Your task to perform on an android device: check the backup settings in the google photos Image 0: 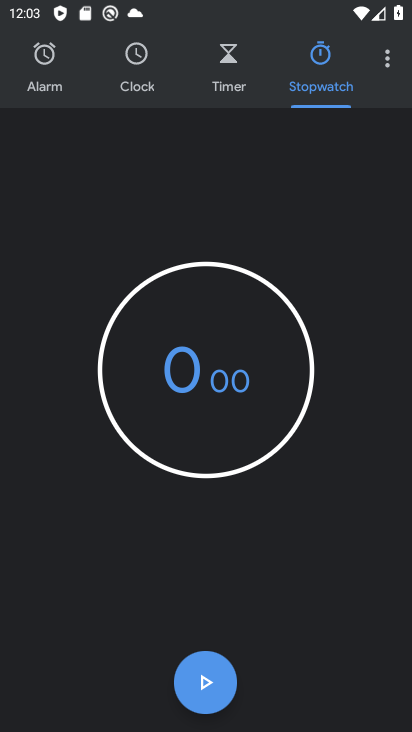
Step 0: press home button
Your task to perform on an android device: check the backup settings in the google photos Image 1: 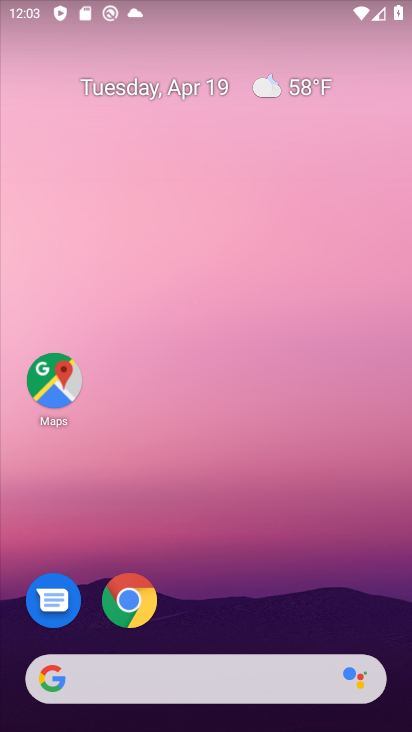
Step 1: drag from (260, 706) to (279, 321)
Your task to perform on an android device: check the backup settings in the google photos Image 2: 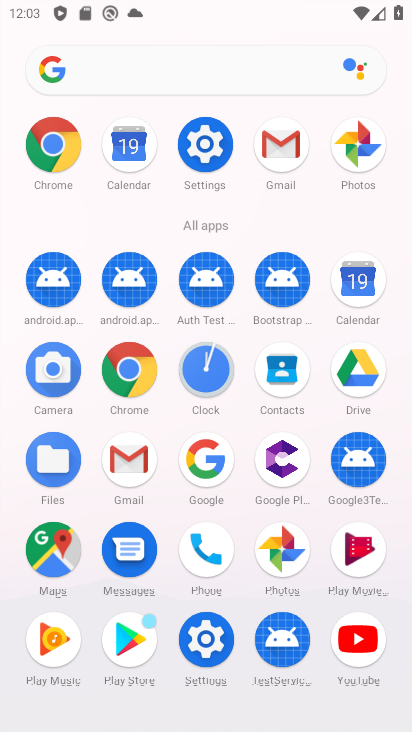
Step 2: click (287, 532)
Your task to perform on an android device: check the backup settings in the google photos Image 3: 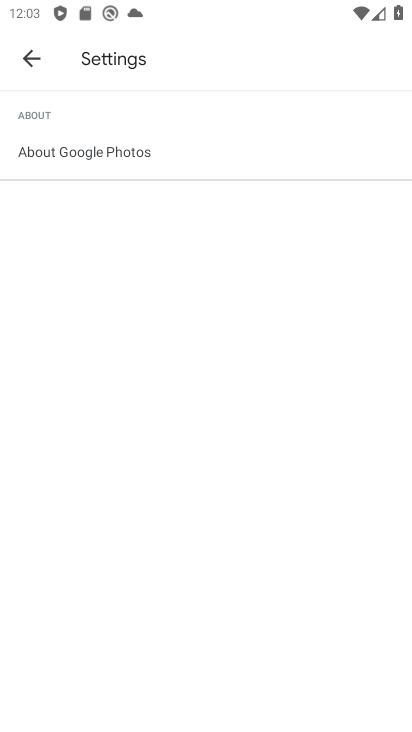
Step 3: click (31, 59)
Your task to perform on an android device: check the backup settings in the google photos Image 4: 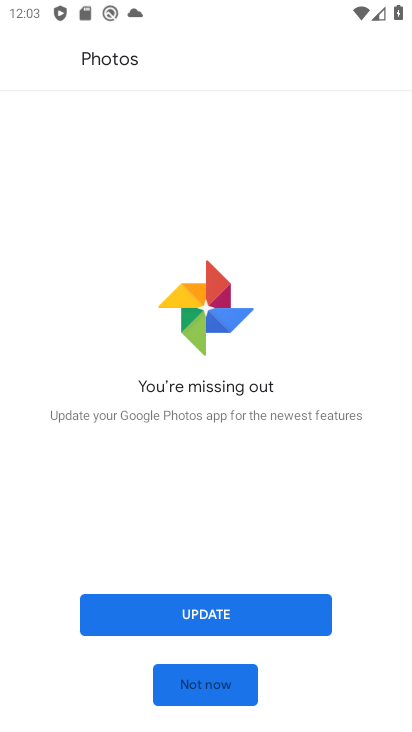
Step 4: click (199, 612)
Your task to perform on an android device: check the backup settings in the google photos Image 5: 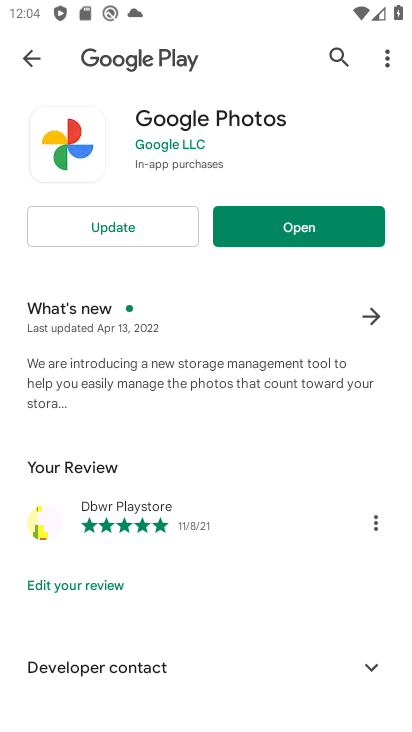
Step 5: click (270, 224)
Your task to perform on an android device: check the backup settings in the google photos Image 6: 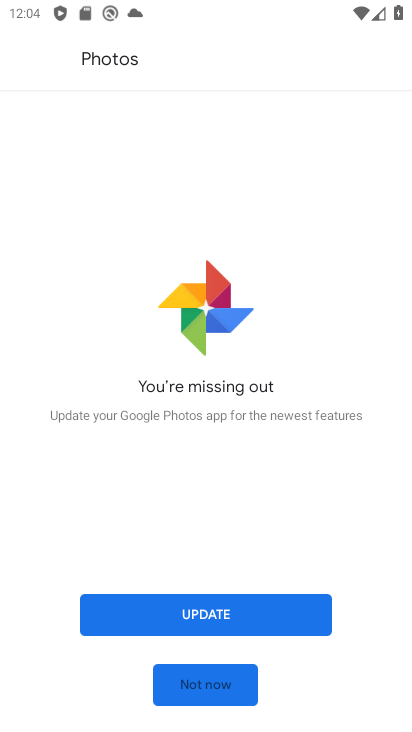
Step 6: click (212, 623)
Your task to perform on an android device: check the backup settings in the google photos Image 7: 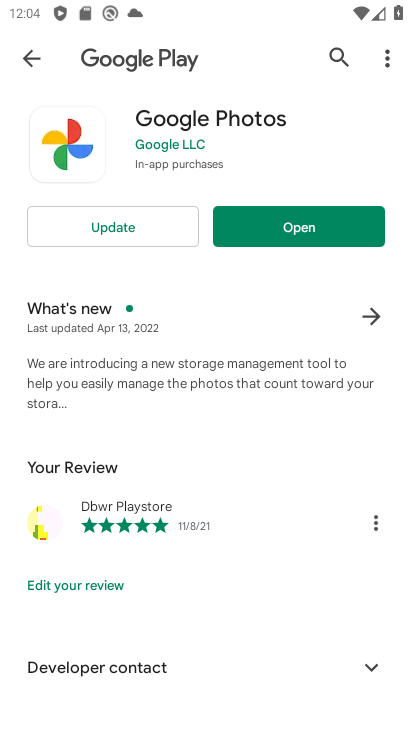
Step 7: click (145, 228)
Your task to perform on an android device: check the backup settings in the google photos Image 8: 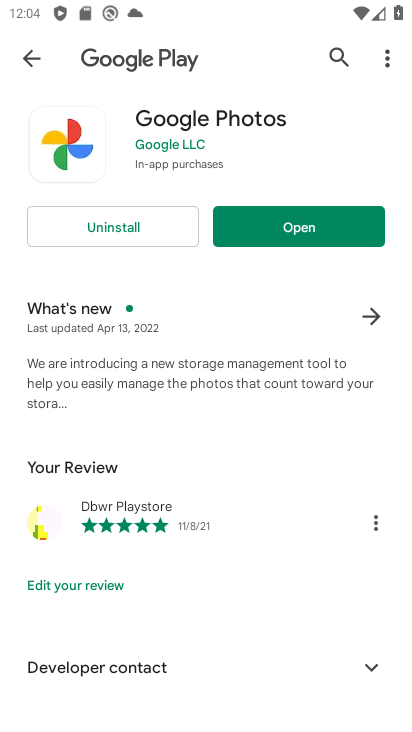
Step 8: click (276, 222)
Your task to perform on an android device: check the backup settings in the google photos Image 9: 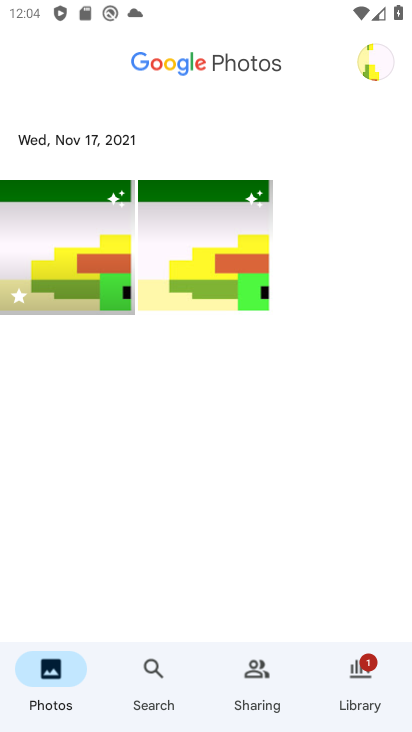
Step 9: click (356, 58)
Your task to perform on an android device: check the backup settings in the google photos Image 10: 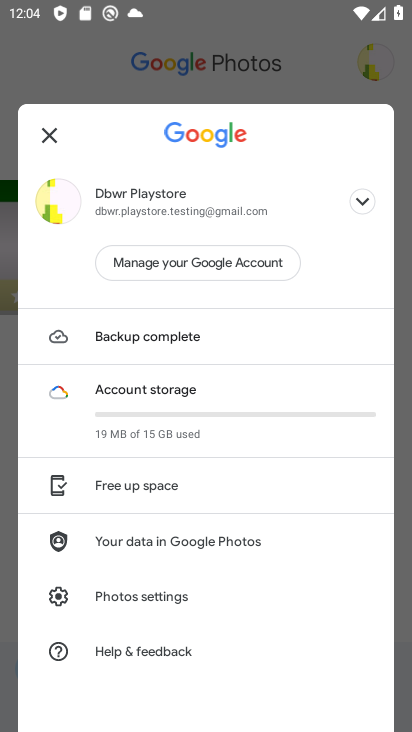
Step 10: click (127, 594)
Your task to perform on an android device: check the backup settings in the google photos Image 11: 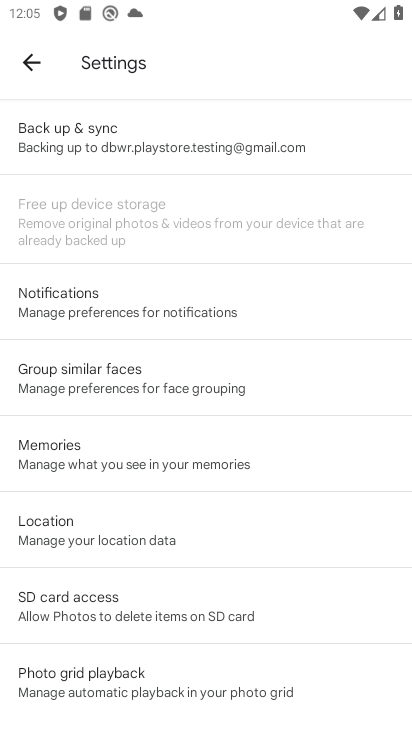
Step 11: click (127, 139)
Your task to perform on an android device: check the backup settings in the google photos Image 12: 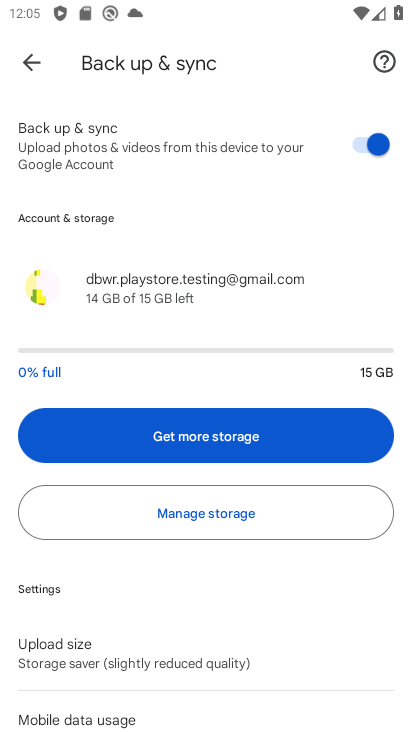
Step 12: task complete